Your task to perform on an android device: turn on airplane mode Image 0: 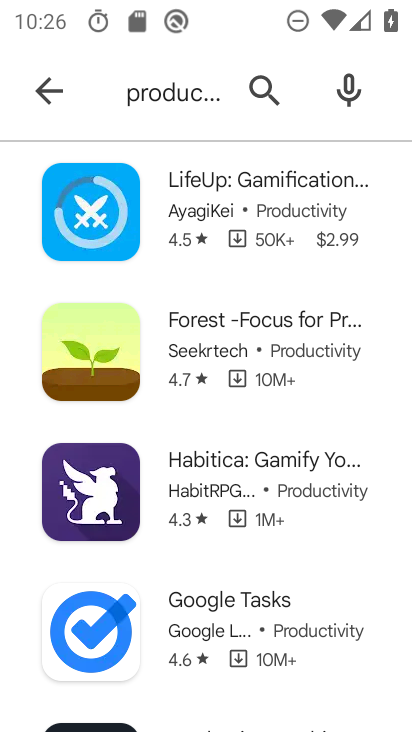
Step 0: press home button
Your task to perform on an android device: turn on airplane mode Image 1: 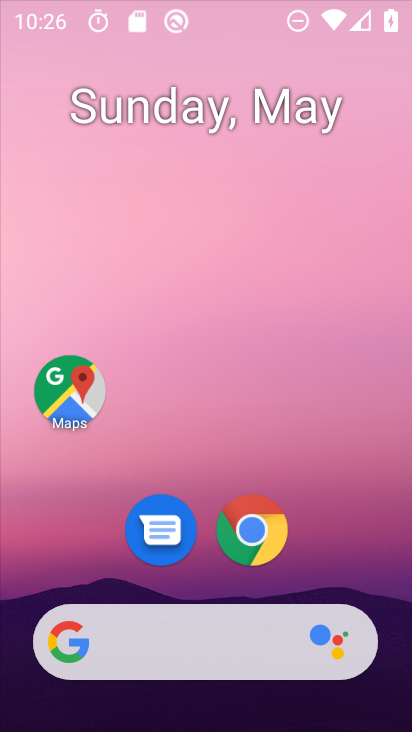
Step 1: drag from (198, 671) to (290, 7)
Your task to perform on an android device: turn on airplane mode Image 2: 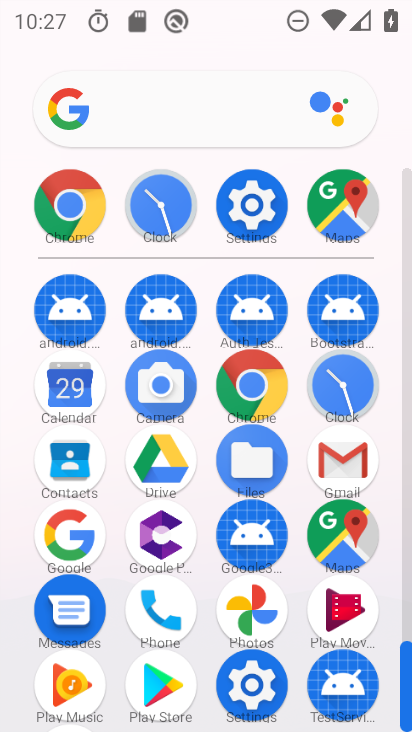
Step 2: click (238, 203)
Your task to perform on an android device: turn on airplane mode Image 3: 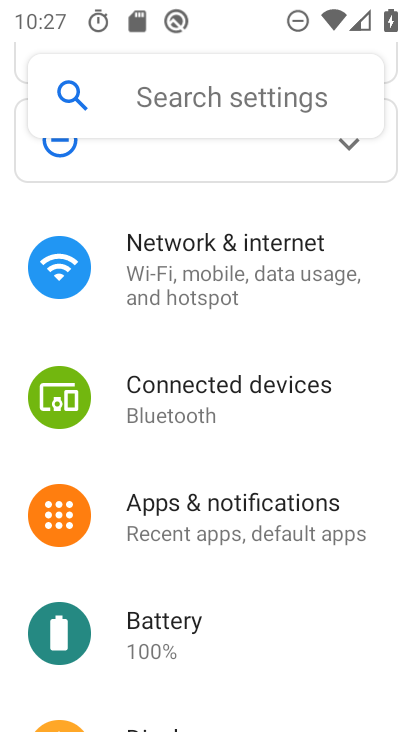
Step 3: click (184, 245)
Your task to perform on an android device: turn on airplane mode Image 4: 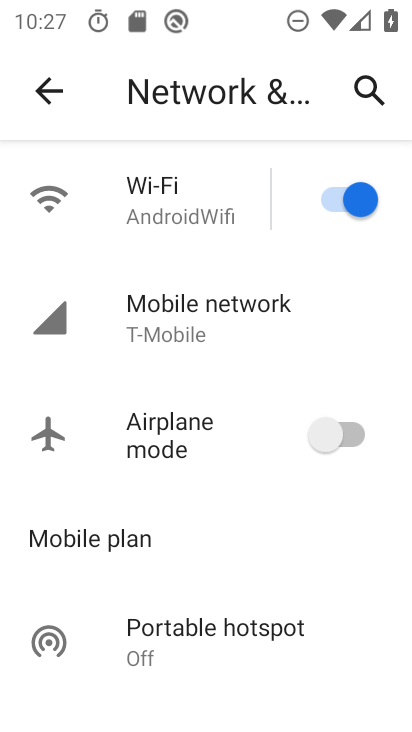
Step 4: task complete